Your task to perform on an android device: Open calendar and show me the second week of next month Image 0: 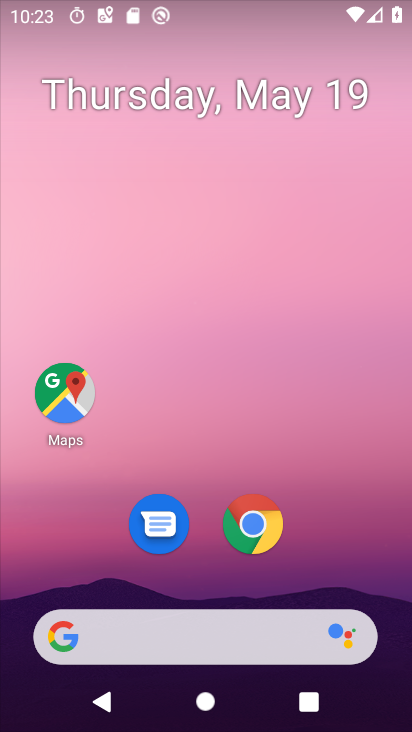
Step 0: drag from (245, 438) to (284, 79)
Your task to perform on an android device: Open calendar and show me the second week of next month Image 1: 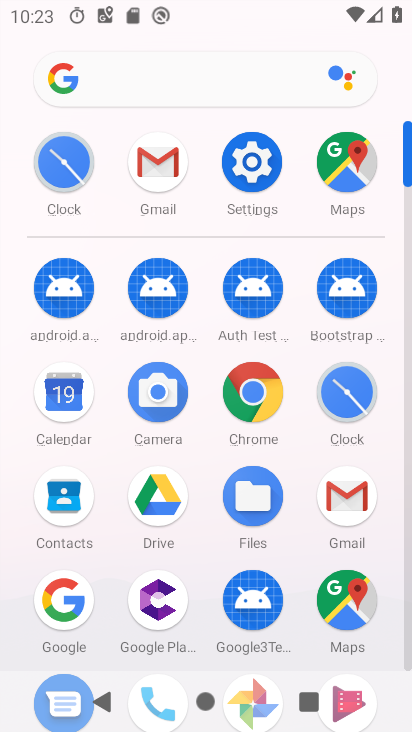
Step 1: click (56, 387)
Your task to perform on an android device: Open calendar and show me the second week of next month Image 2: 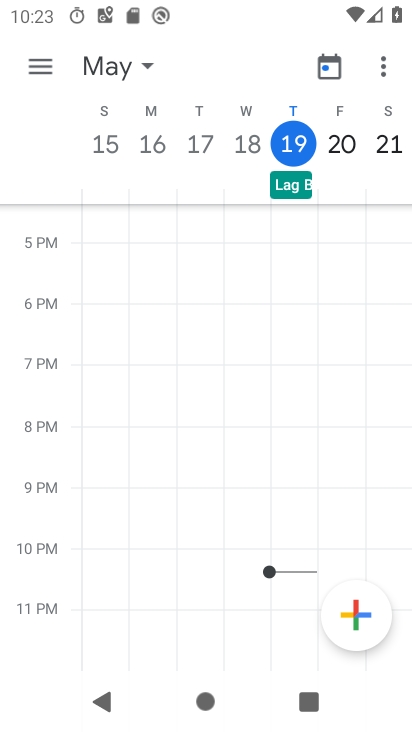
Step 2: task complete